Your task to perform on an android device: open app "Google Pay: Save, Pay, Manage" Image 0: 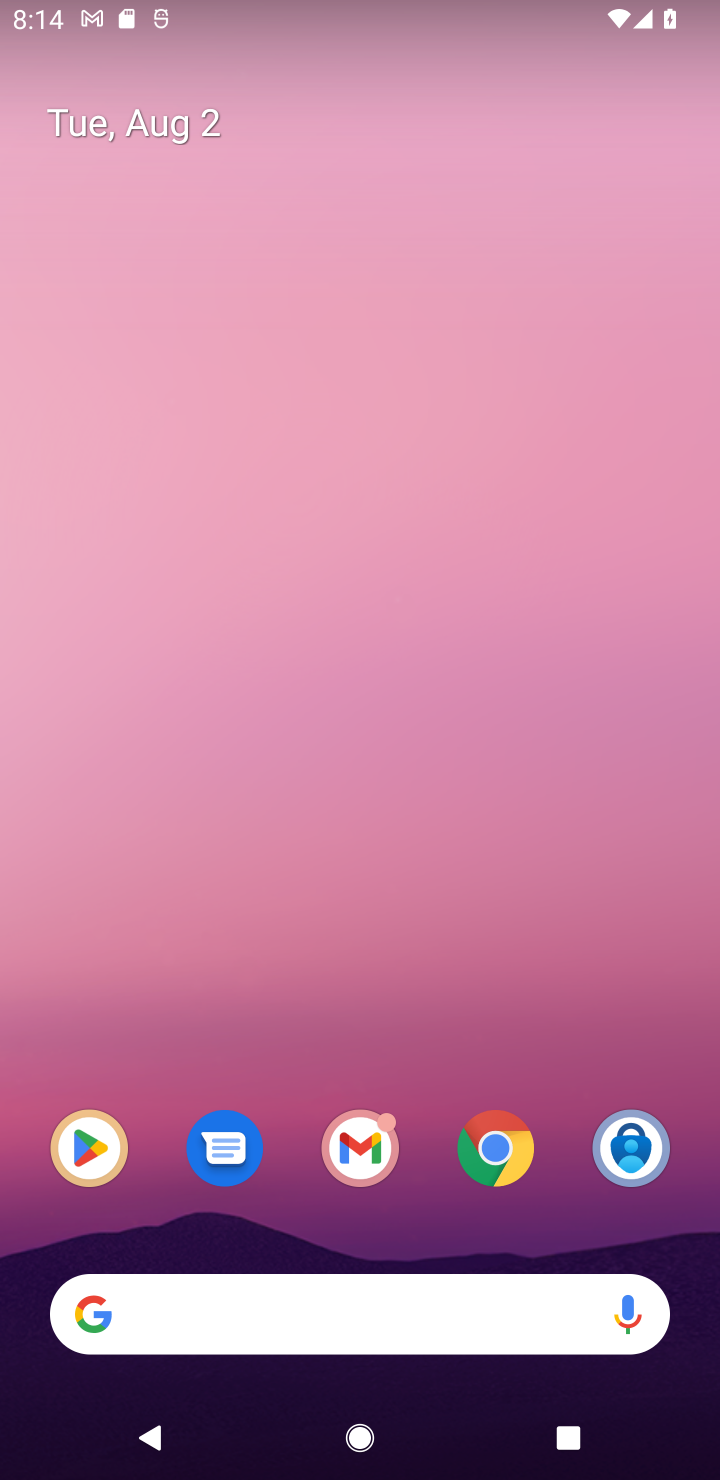
Step 0: drag from (572, 1106) to (281, 70)
Your task to perform on an android device: open app "Google Pay: Save, Pay, Manage" Image 1: 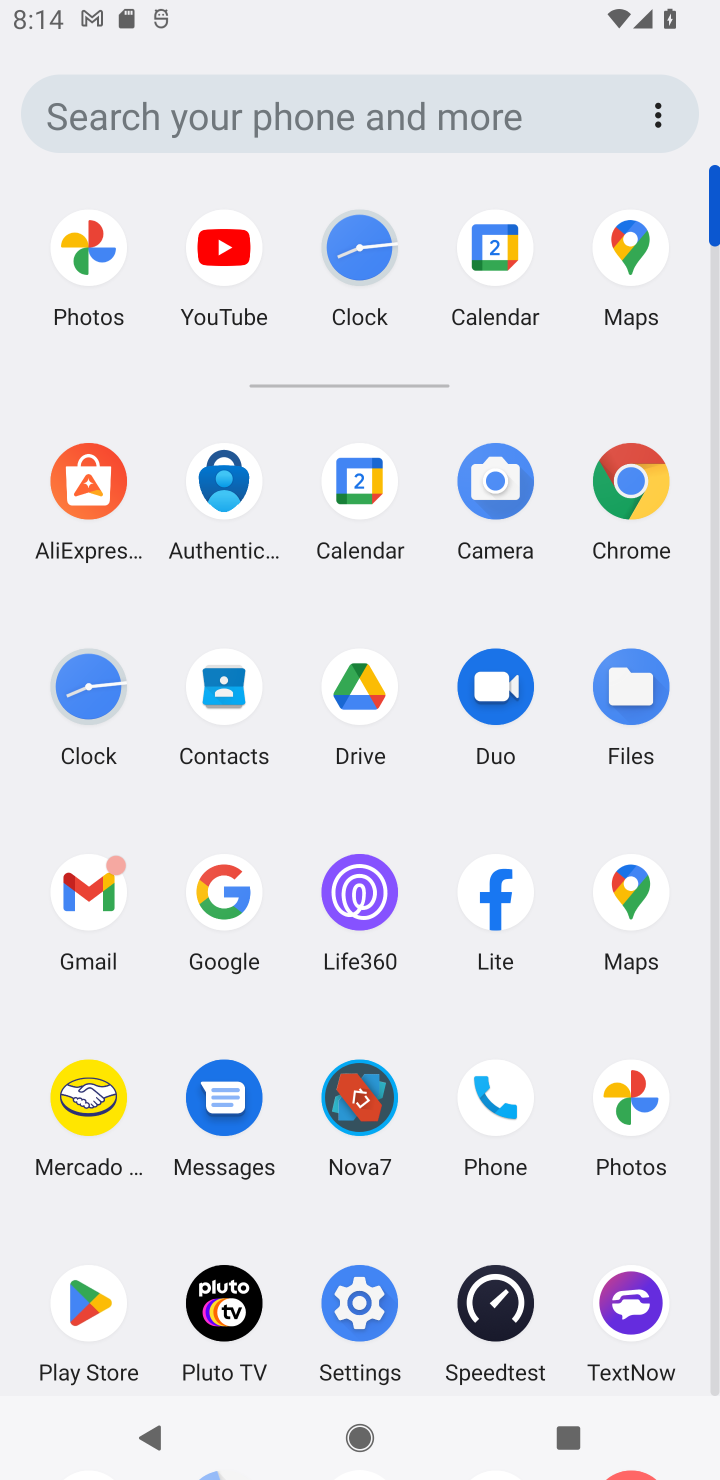
Step 1: click (107, 1280)
Your task to perform on an android device: open app "Google Pay: Save, Pay, Manage" Image 2: 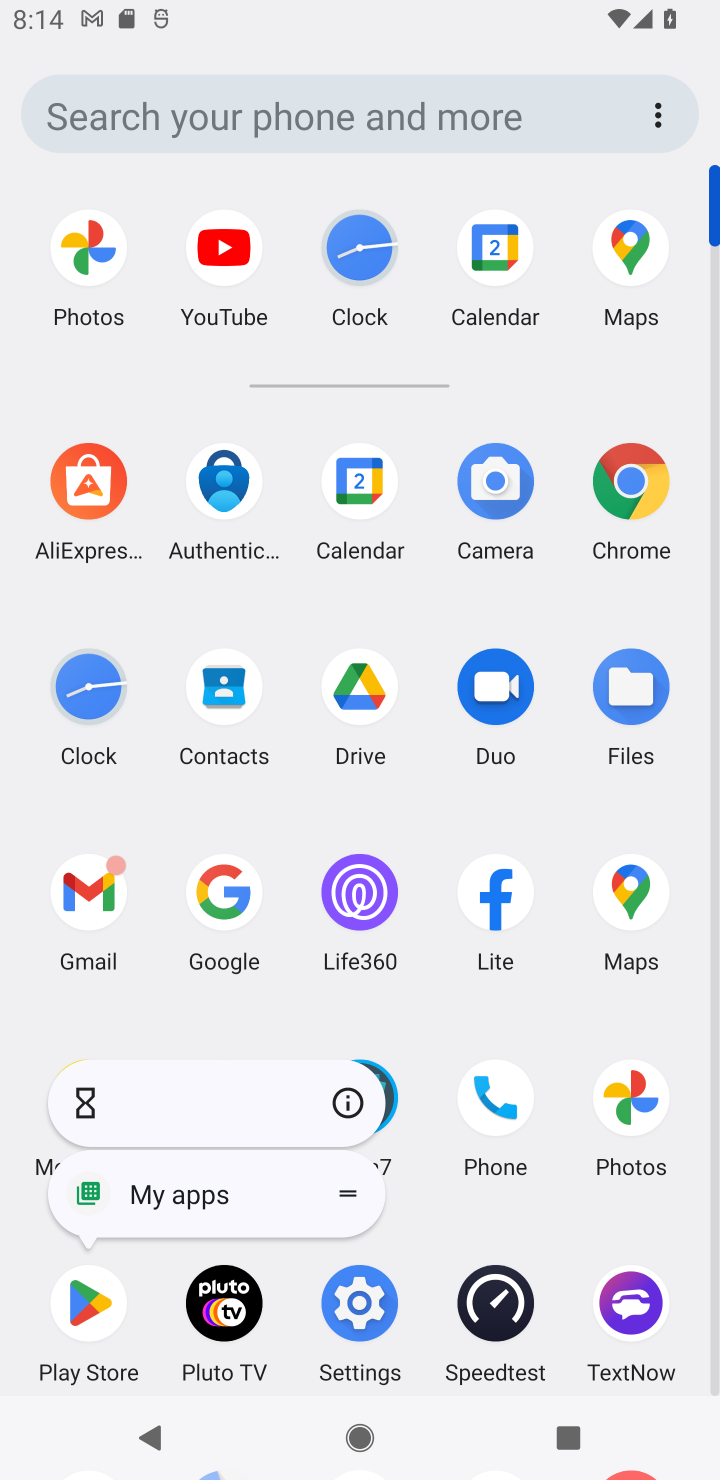
Step 2: click (107, 1280)
Your task to perform on an android device: open app "Google Pay: Save, Pay, Manage" Image 3: 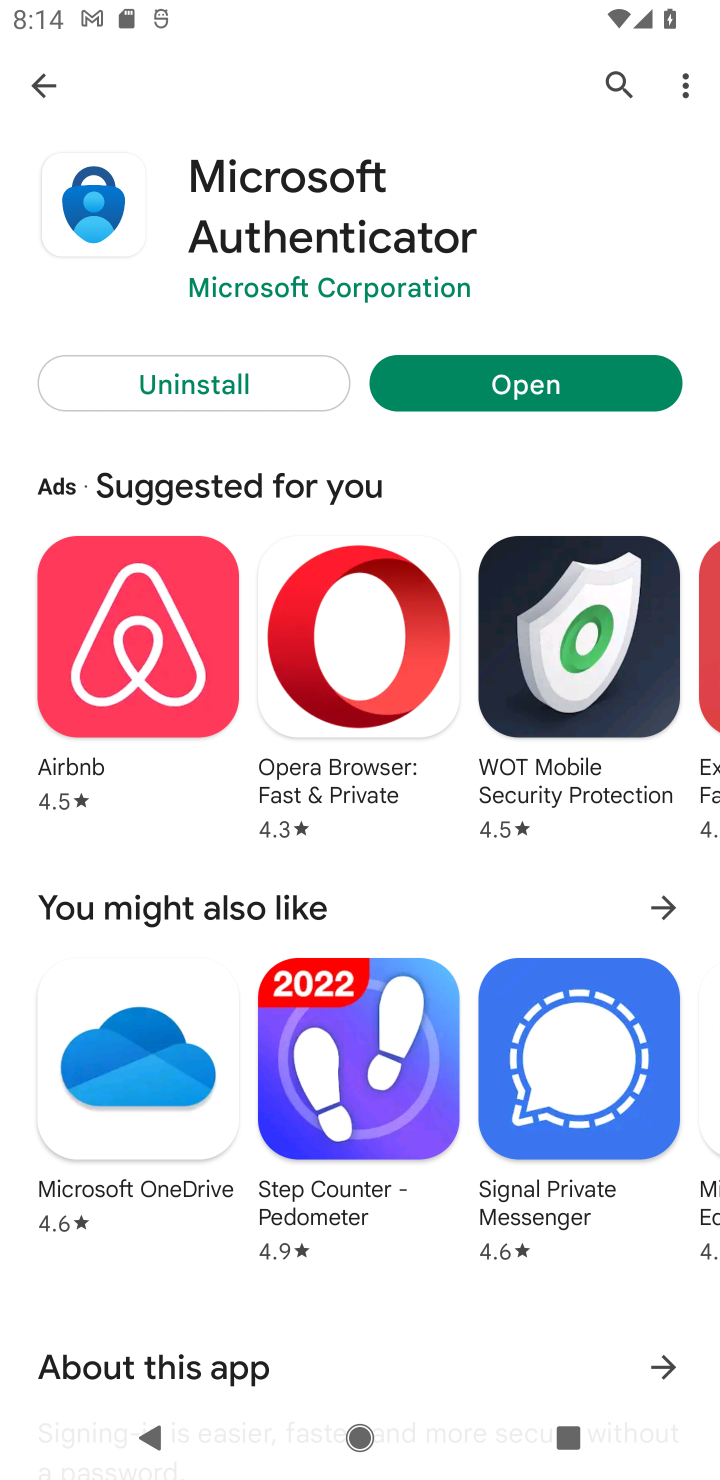
Step 3: press back button
Your task to perform on an android device: open app "Google Pay: Save, Pay, Manage" Image 4: 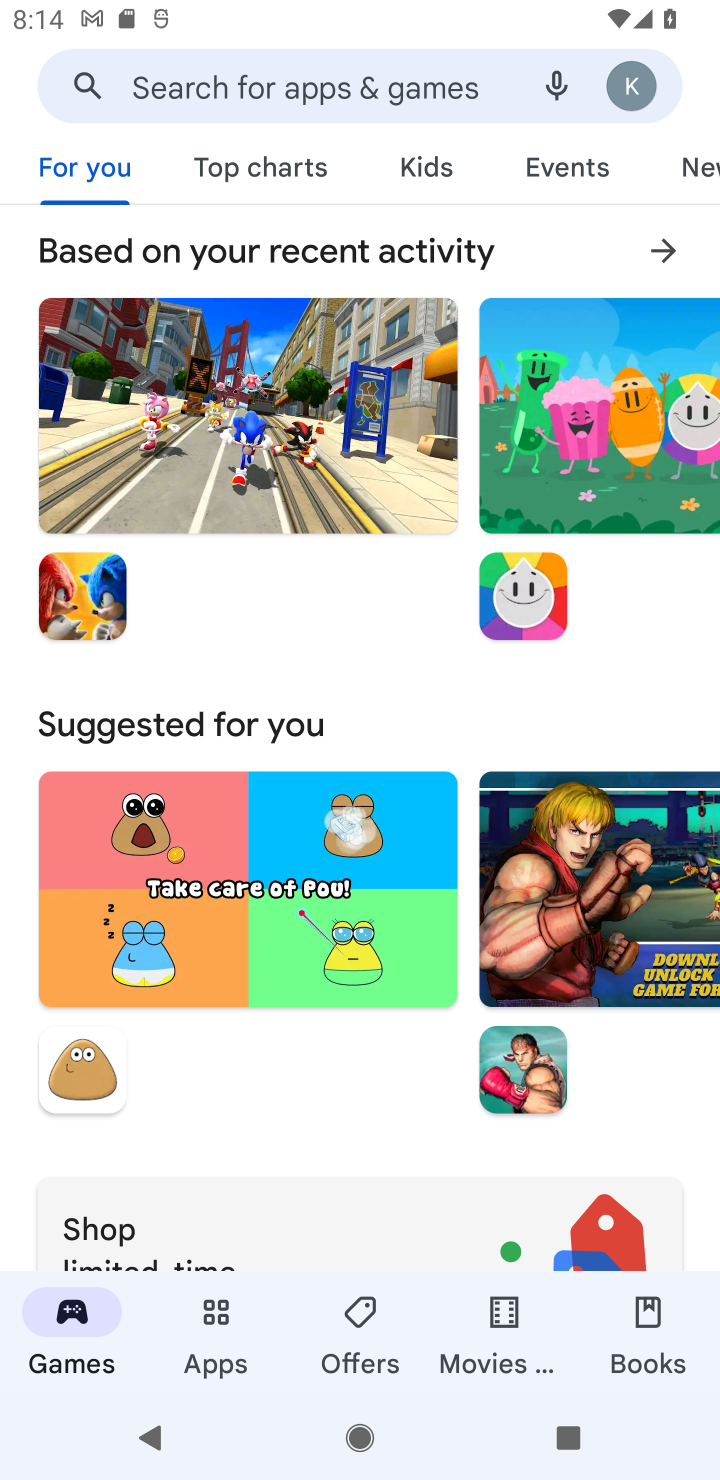
Step 4: click (221, 57)
Your task to perform on an android device: open app "Google Pay: Save, Pay, Manage" Image 5: 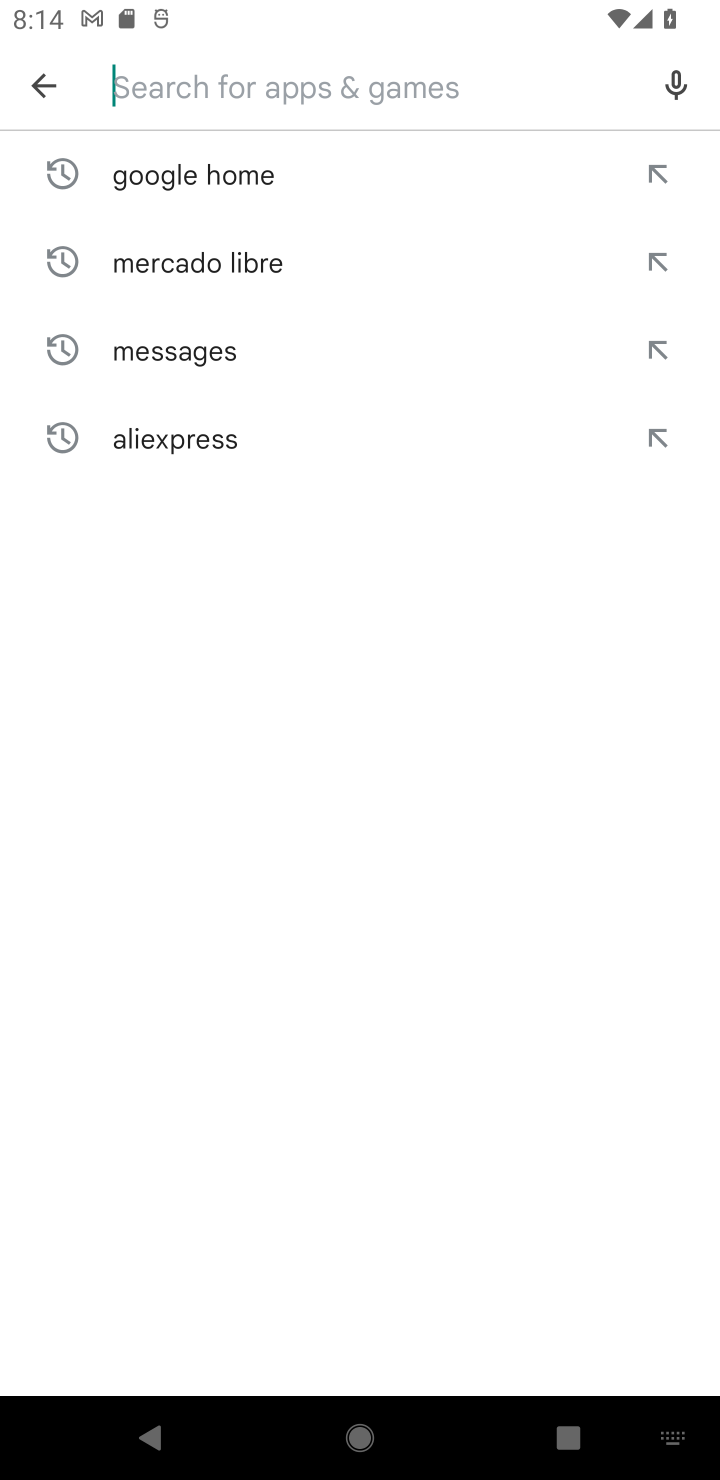
Step 5: type "Google Pay: Save, Pay, Manage"
Your task to perform on an android device: open app "Google Pay: Save, Pay, Manage" Image 6: 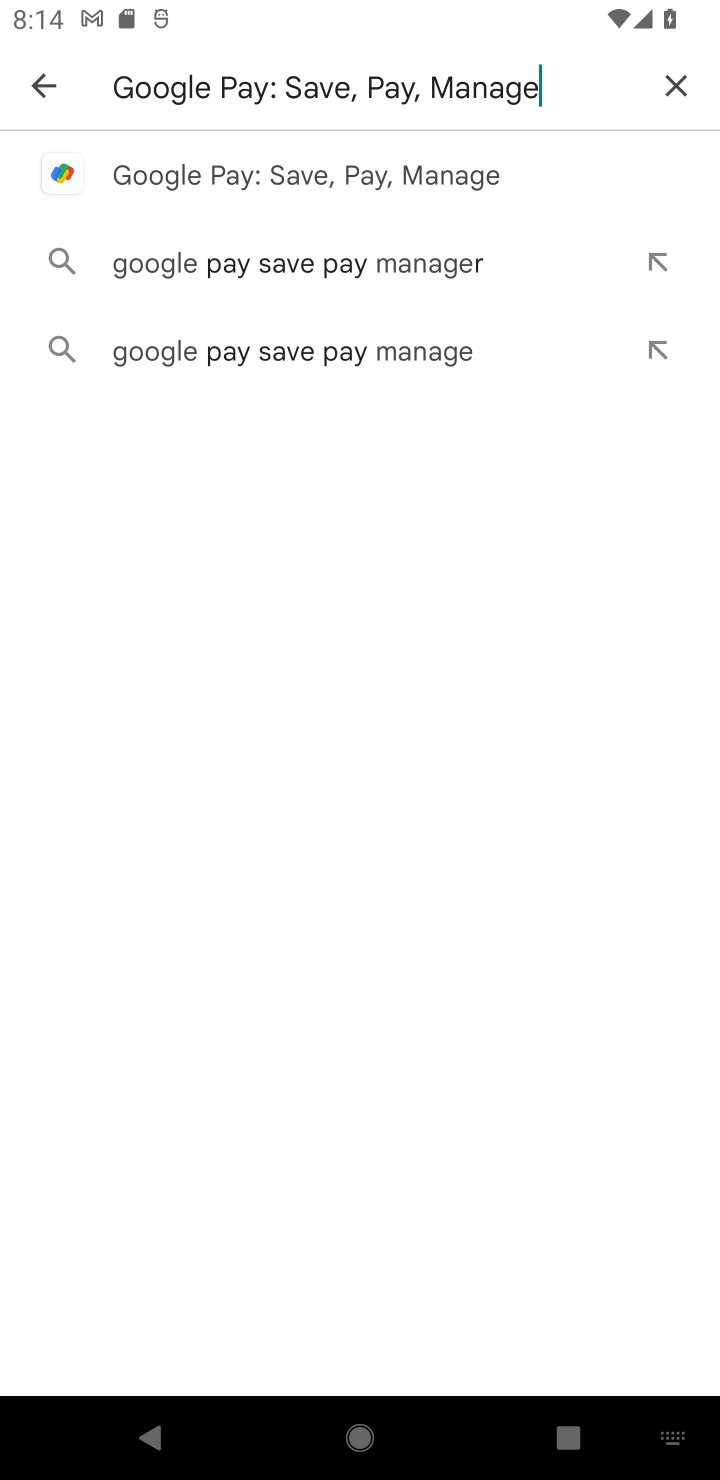
Step 6: click (316, 192)
Your task to perform on an android device: open app "Google Pay: Save, Pay, Manage" Image 7: 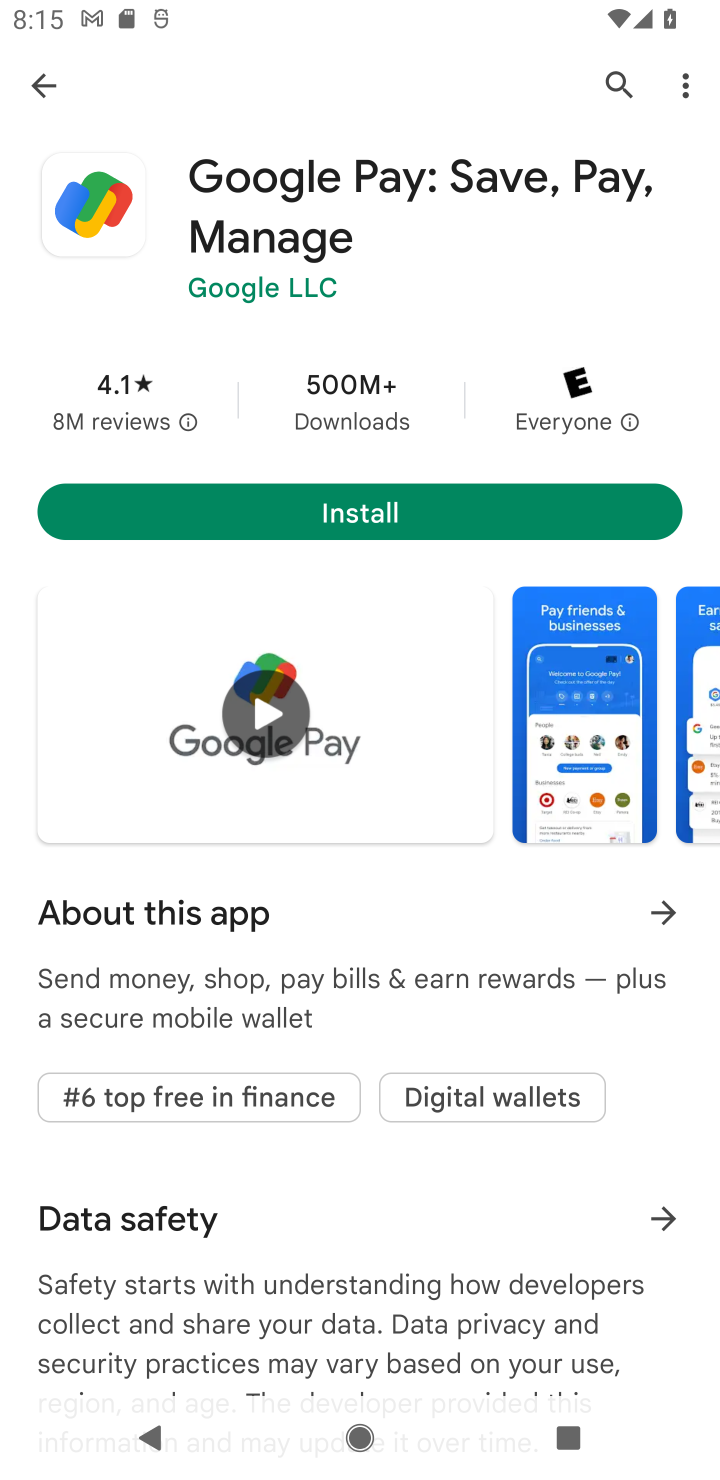
Step 7: task complete